Your task to perform on an android device: Open the calendar app, open the side menu, and click the "Day" option Image 0: 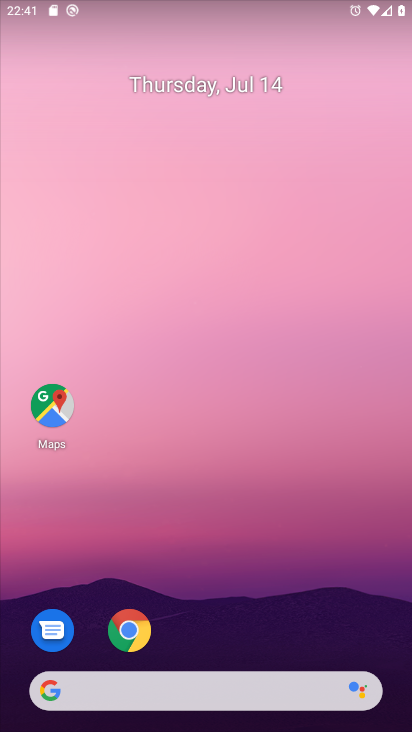
Step 0: drag from (186, 624) to (179, 188)
Your task to perform on an android device: Open the calendar app, open the side menu, and click the "Day" option Image 1: 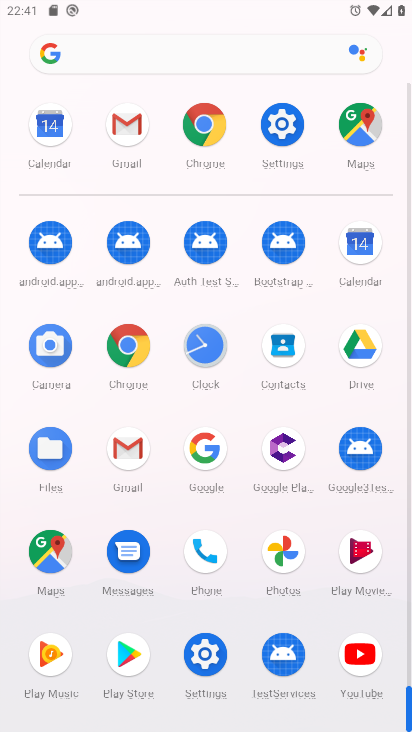
Step 1: click (355, 245)
Your task to perform on an android device: Open the calendar app, open the side menu, and click the "Day" option Image 2: 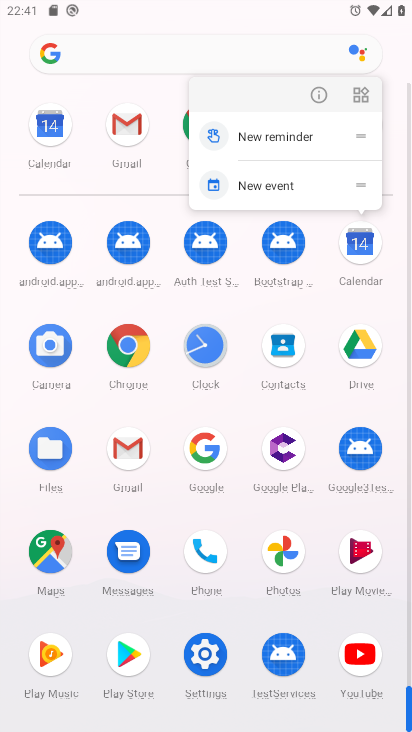
Step 2: click (319, 88)
Your task to perform on an android device: Open the calendar app, open the side menu, and click the "Day" option Image 3: 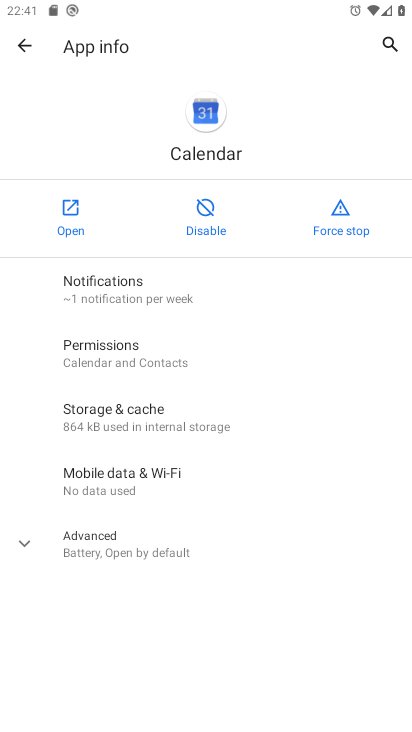
Step 3: click (69, 209)
Your task to perform on an android device: Open the calendar app, open the side menu, and click the "Day" option Image 4: 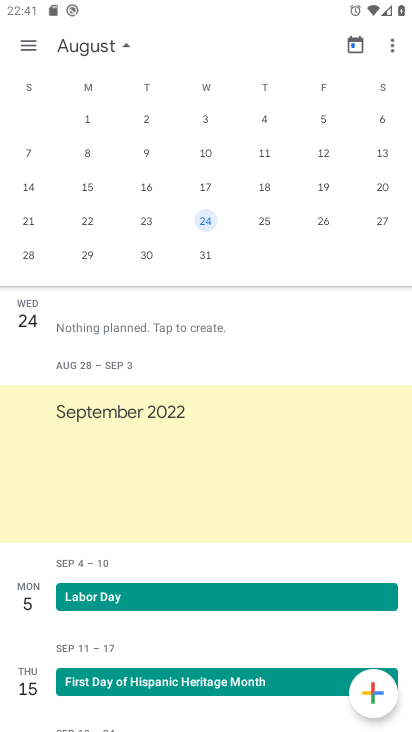
Step 4: click (17, 50)
Your task to perform on an android device: Open the calendar app, open the side menu, and click the "Day" option Image 5: 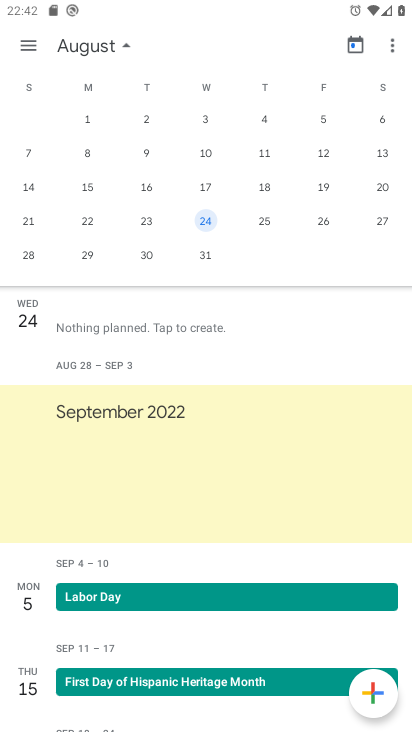
Step 5: task complete